Your task to perform on an android device: open app "Messenger Lite" (install if not already installed), go to login, and select forgot password Image 0: 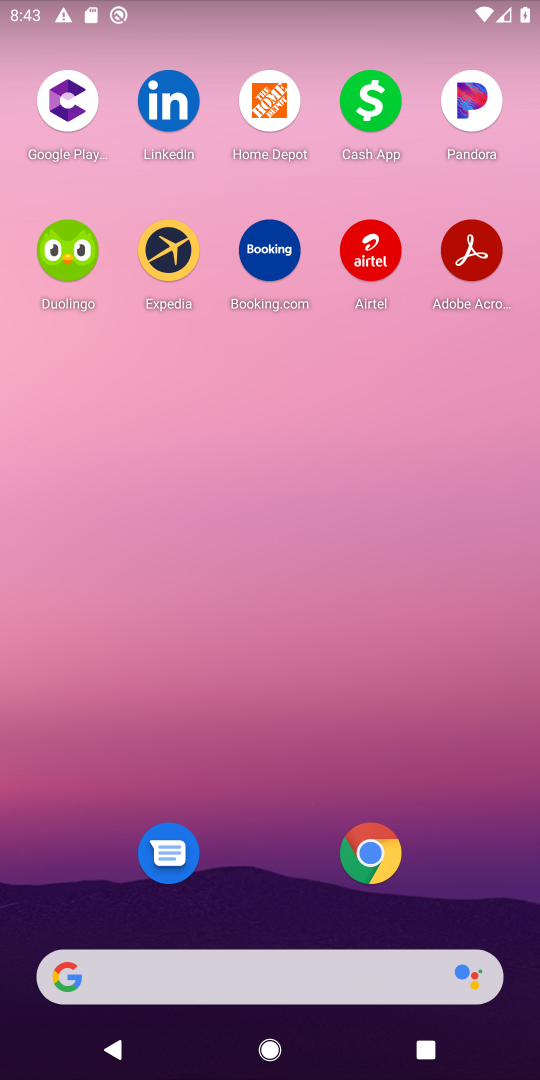
Step 0: drag from (260, 807) to (271, 118)
Your task to perform on an android device: open app "Messenger Lite" (install if not already installed), go to login, and select forgot password Image 1: 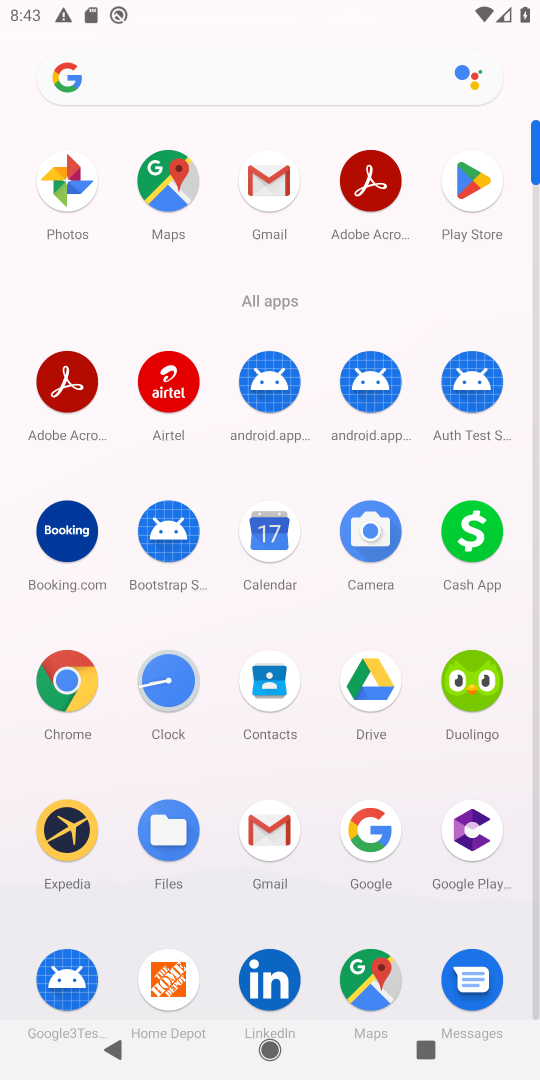
Step 1: click (464, 194)
Your task to perform on an android device: open app "Messenger Lite" (install if not already installed), go to login, and select forgot password Image 2: 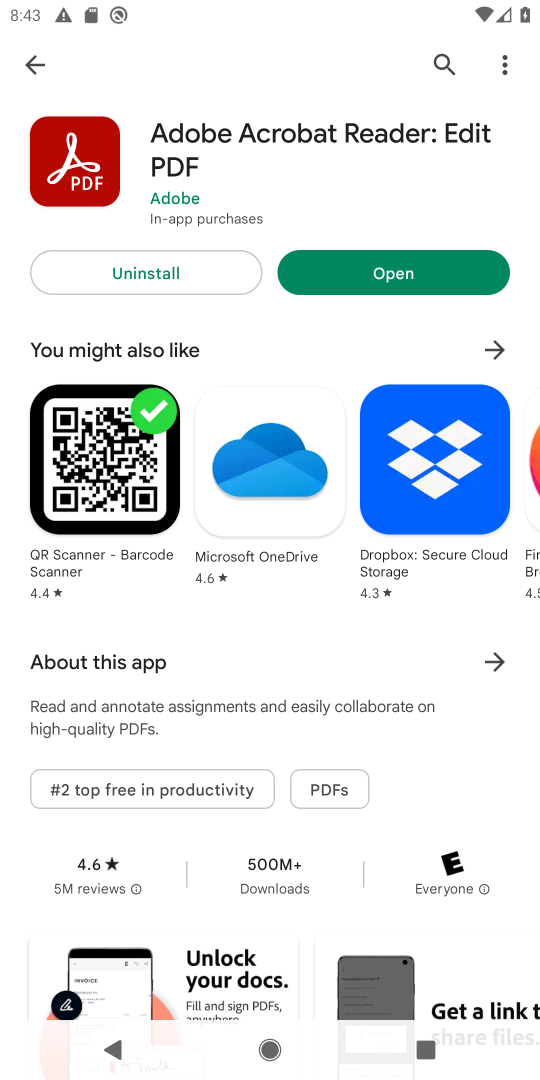
Step 2: click (437, 57)
Your task to perform on an android device: open app "Messenger Lite" (install if not already installed), go to login, and select forgot password Image 3: 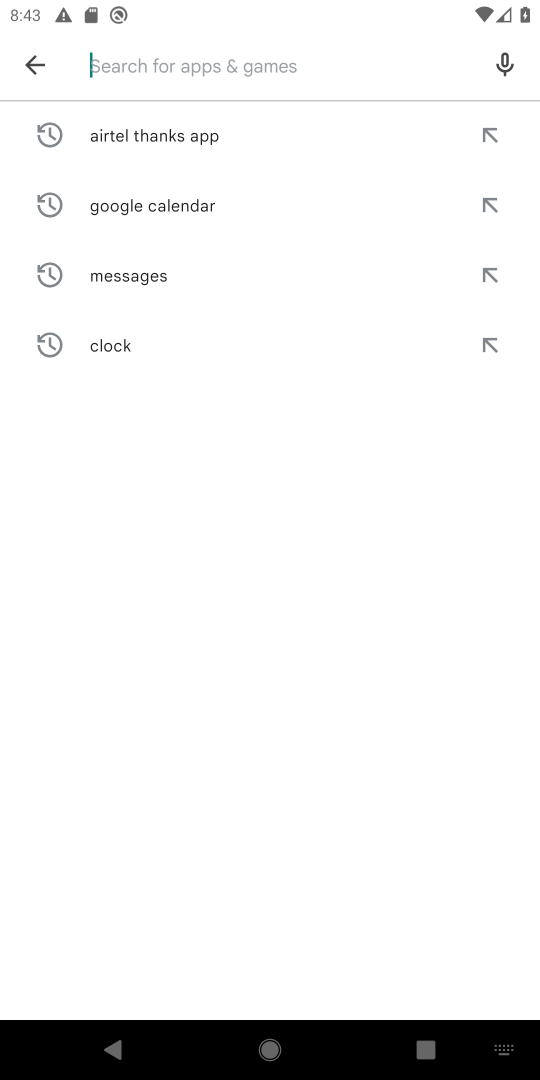
Step 3: type "Messenger Lite"
Your task to perform on an android device: open app "Messenger Lite" (install if not already installed), go to login, and select forgot password Image 4: 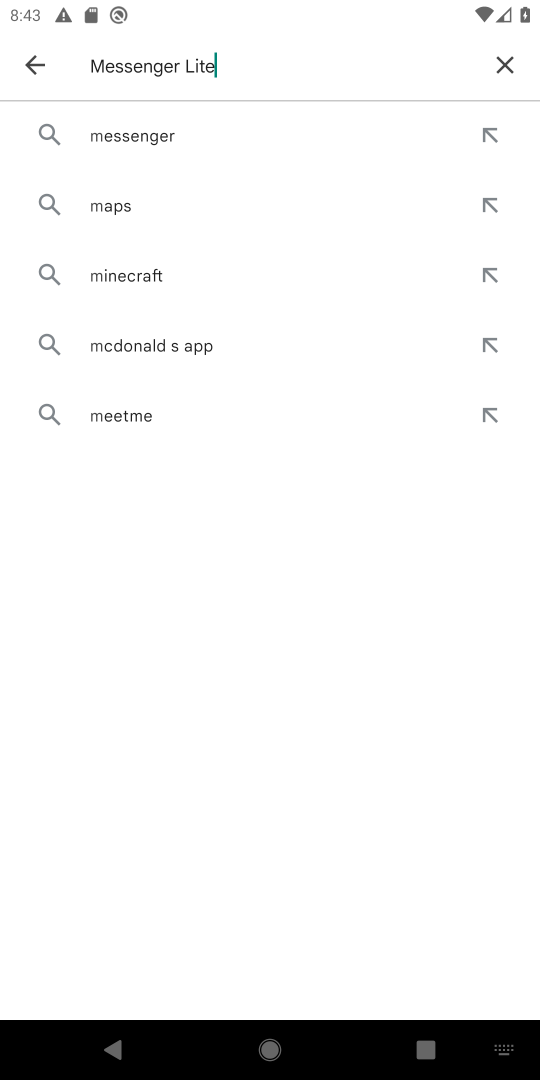
Step 4: type ""
Your task to perform on an android device: open app "Messenger Lite" (install if not already installed), go to login, and select forgot password Image 5: 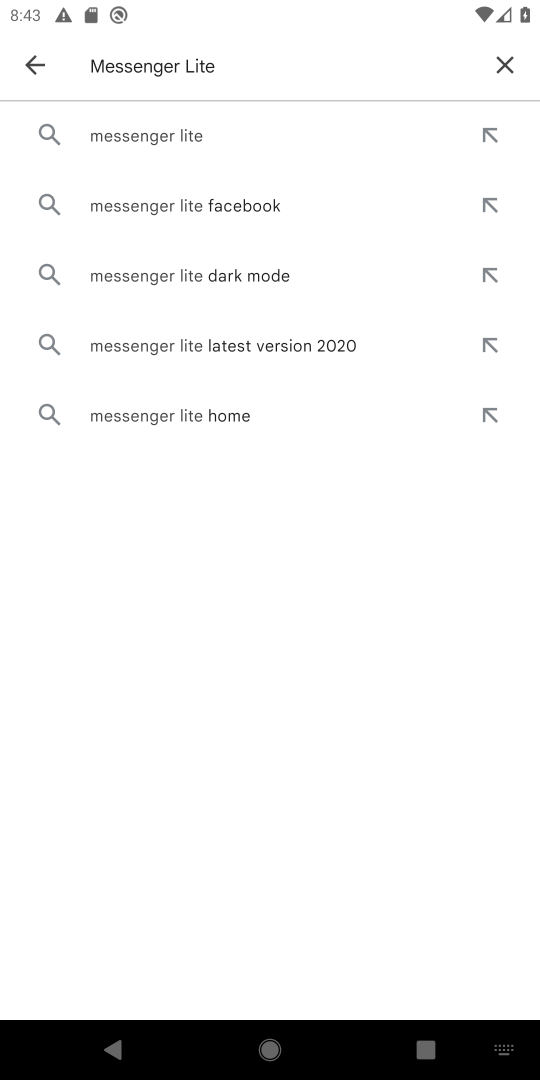
Step 5: click (106, 121)
Your task to perform on an android device: open app "Messenger Lite" (install if not already installed), go to login, and select forgot password Image 6: 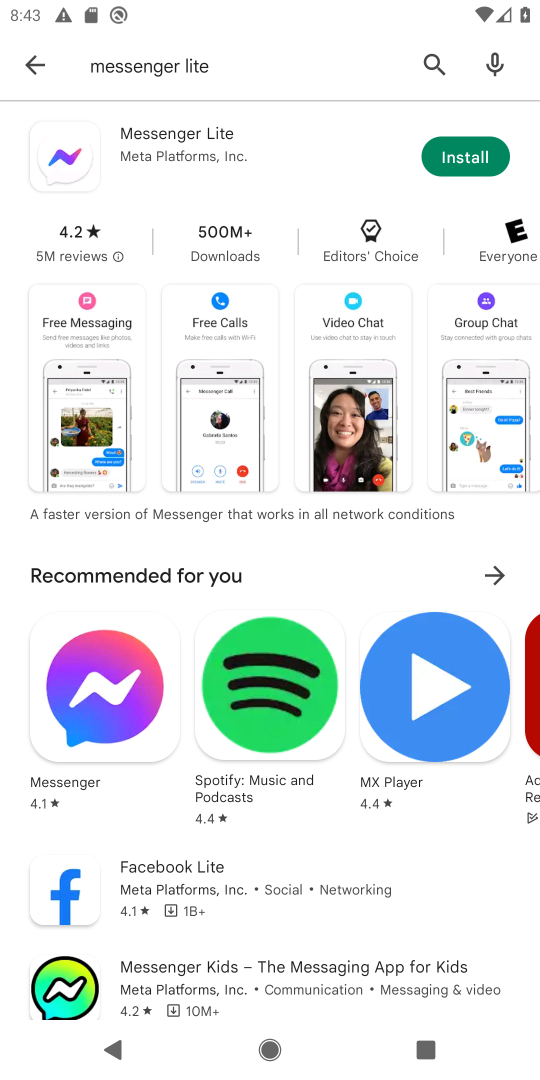
Step 6: click (459, 157)
Your task to perform on an android device: open app "Messenger Lite" (install if not already installed), go to login, and select forgot password Image 7: 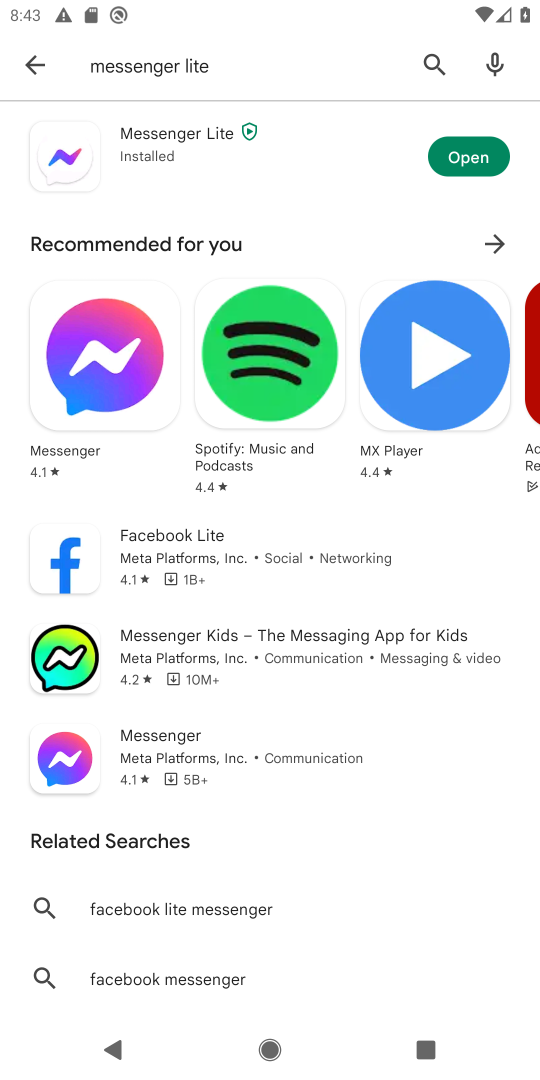
Step 7: click (464, 165)
Your task to perform on an android device: open app "Messenger Lite" (install if not already installed), go to login, and select forgot password Image 8: 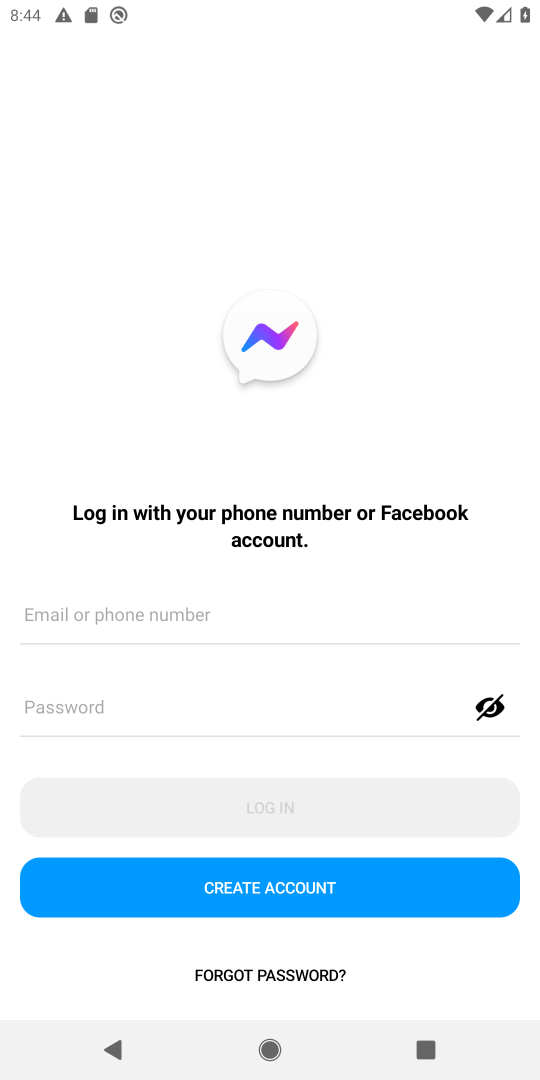
Step 8: task complete